Your task to perform on an android device: open sync settings in chrome Image 0: 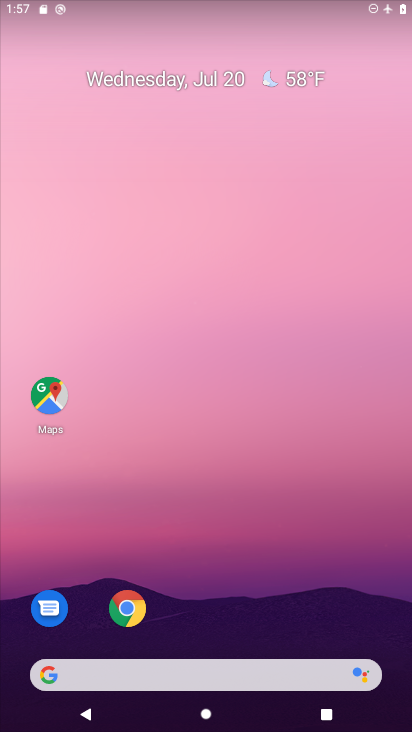
Step 0: click (126, 610)
Your task to perform on an android device: open sync settings in chrome Image 1: 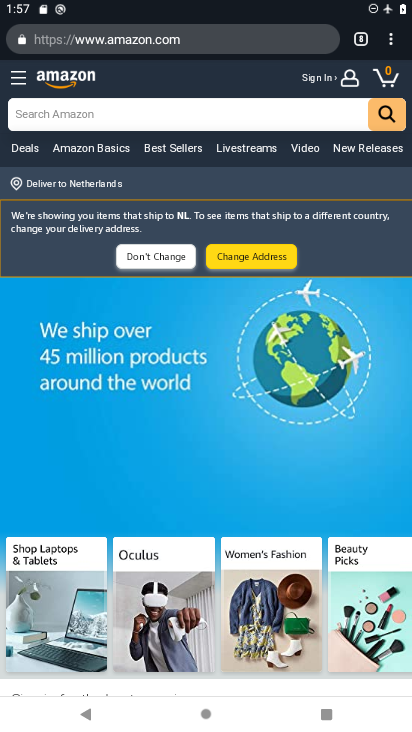
Step 1: click (390, 41)
Your task to perform on an android device: open sync settings in chrome Image 2: 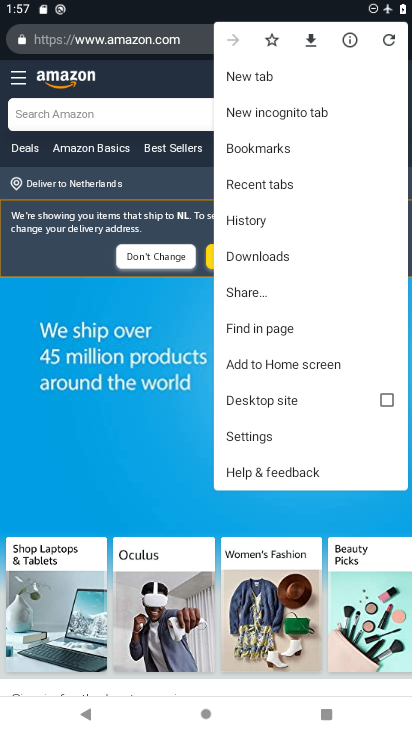
Step 2: click (252, 435)
Your task to perform on an android device: open sync settings in chrome Image 3: 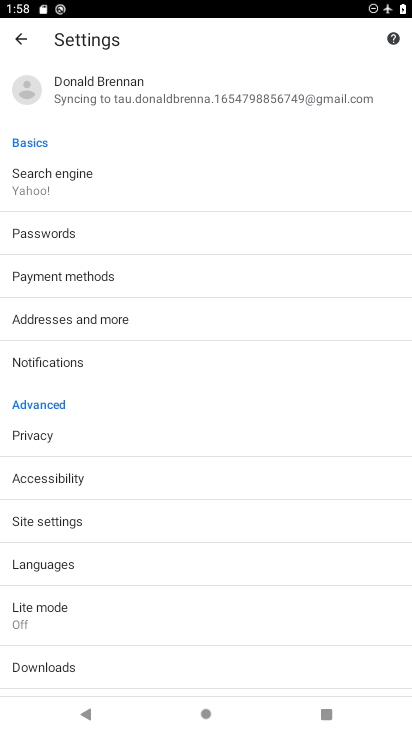
Step 3: click (32, 518)
Your task to perform on an android device: open sync settings in chrome Image 4: 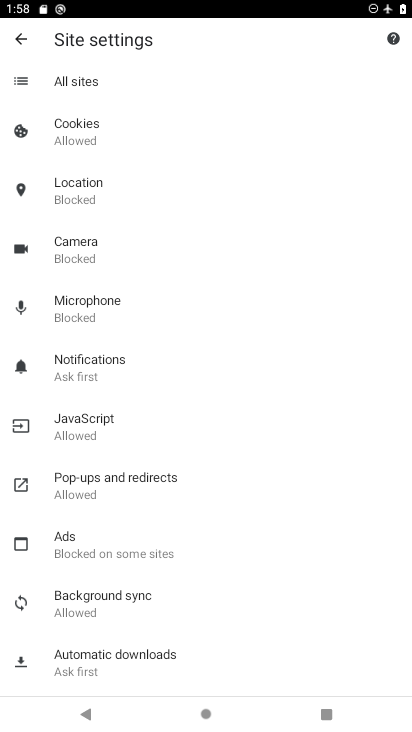
Step 4: click (90, 598)
Your task to perform on an android device: open sync settings in chrome Image 5: 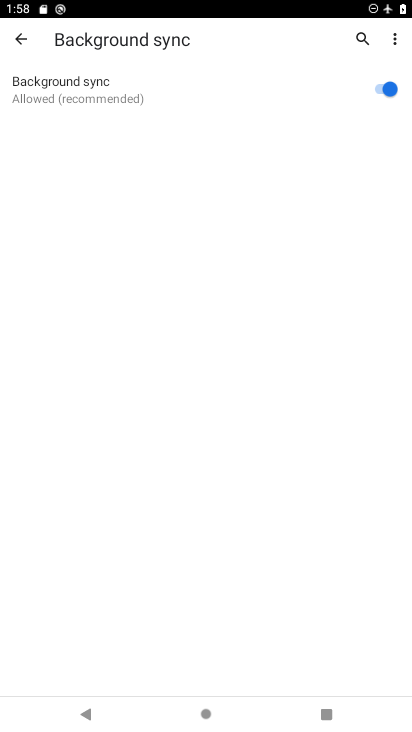
Step 5: task complete